Your task to perform on an android device: see tabs open on other devices in the chrome app Image 0: 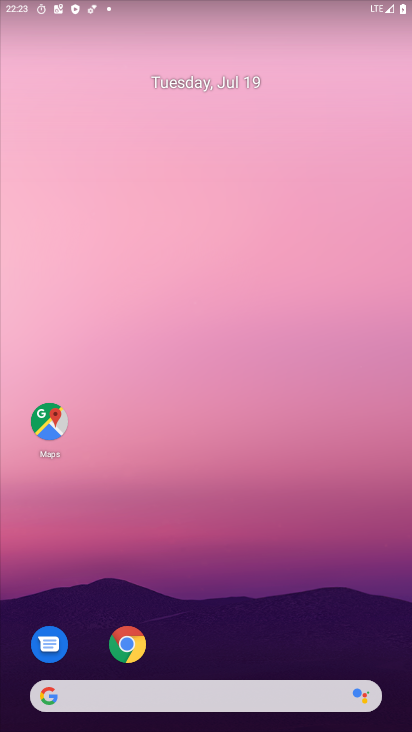
Step 0: drag from (303, 607) to (301, 97)
Your task to perform on an android device: see tabs open on other devices in the chrome app Image 1: 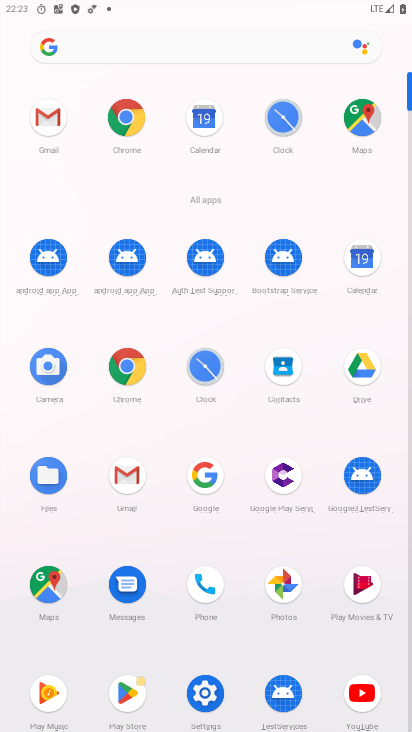
Step 1: click (117, 367)
Your task to perform on an android device: see tabs open on other devices in the chrome app Image 2: 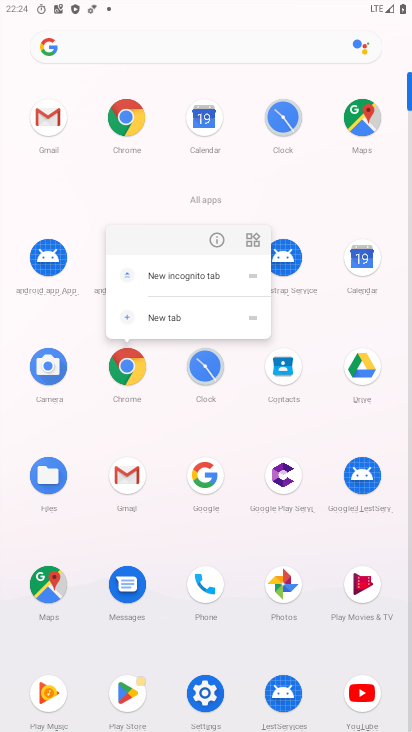
Step 2: click (121, 364)
Your task to perform on an android device: see tabs open on other devices in the chrome app Image 3: 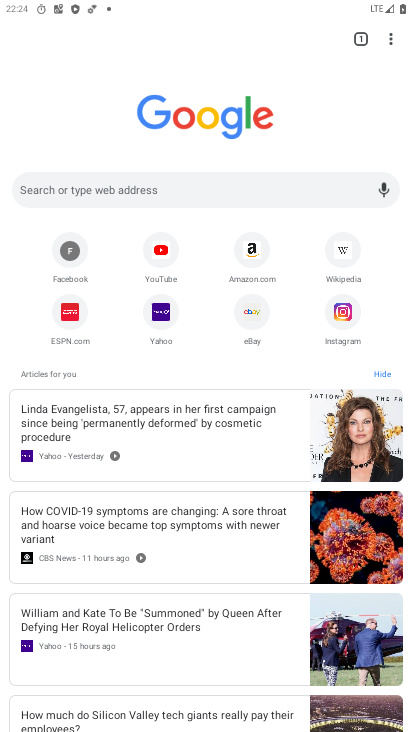
Step 3: click (394, 34)
Your task to perform on an android device: see tabs open on other devices in the chrome app Image 4: 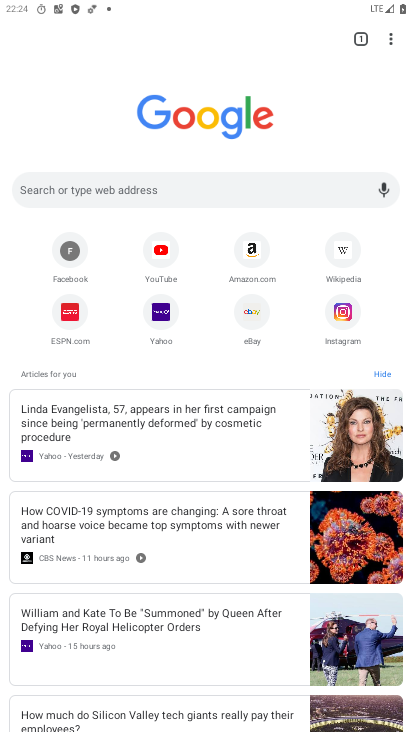
Step 4: click (394, 34)
Your task to perform on an android device: see tabs open on other devices in the chrome app Image 5: 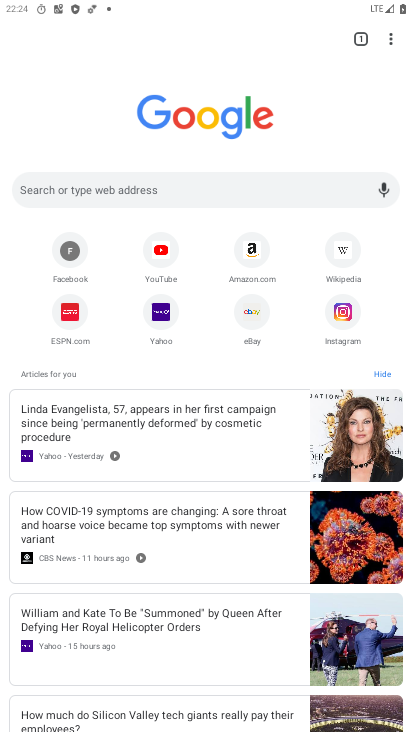
Step 5: task complete